Your task to perform on an android device: open a new tab in the chrome app Image 0: 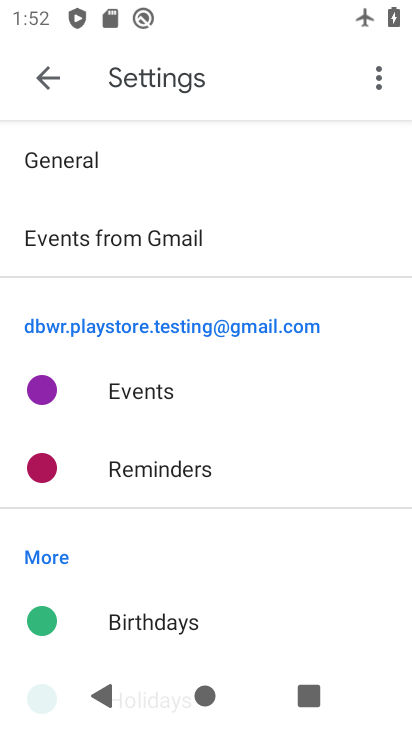
Step 0: press home button
Your task to perform on an android device: open a new tab in the chrome app Image 1: 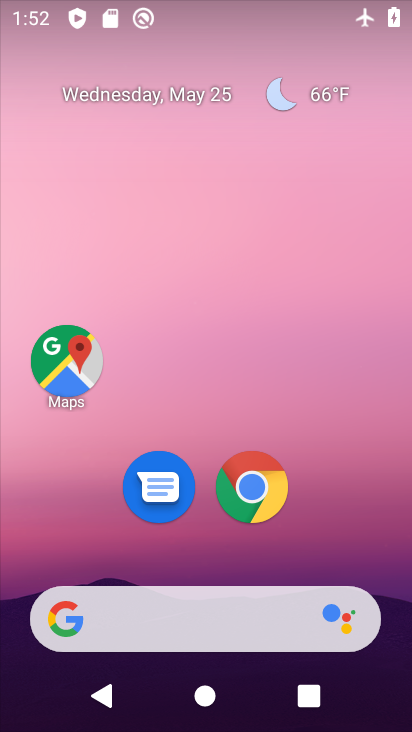
Step 1: click (246, 481)
Your task to perform on an android device: open a new tab in the chrome app Image 2: 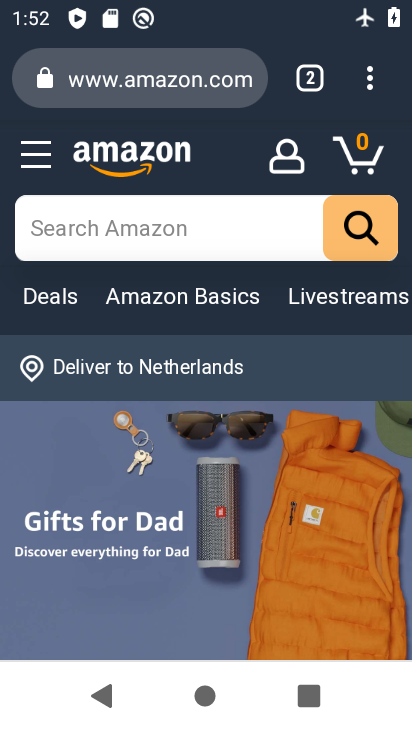
Step 2: click (318, 82)
Your task to perform on an android device: open a new tab in the chrome app Image 3: 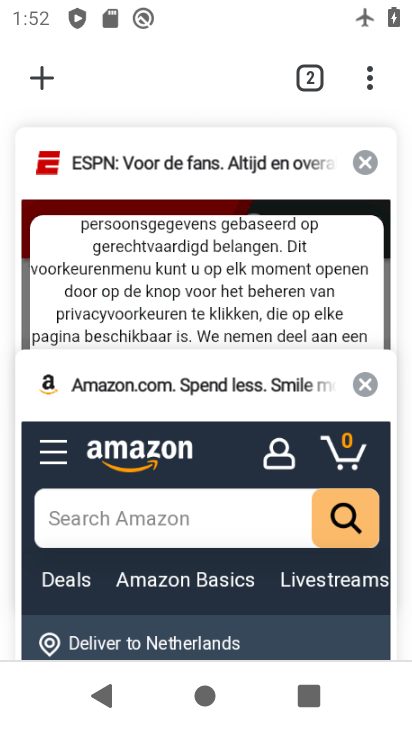
Step 3: click (38, 77)
Your task to perform on an android device: open a new tab in the chrome app Image 4: 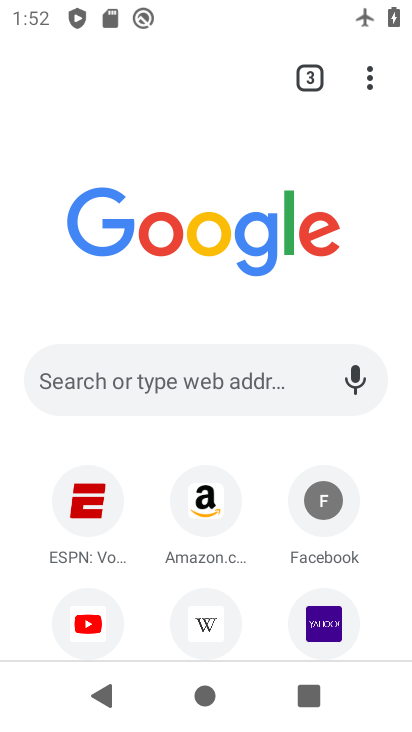
Step 4: task complete